Your task to perform on an android device: Open Yahoo.com Image 0: 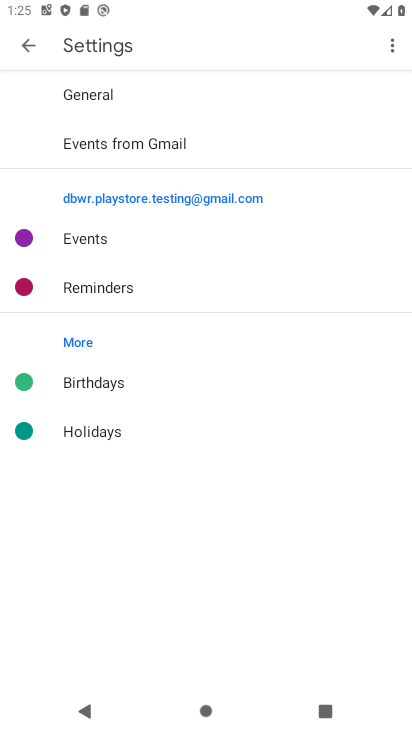
Step 0: drag from (211, 622) to (327, 341)
Your task to perform on an android device: Open Yahoo.com Image 1: 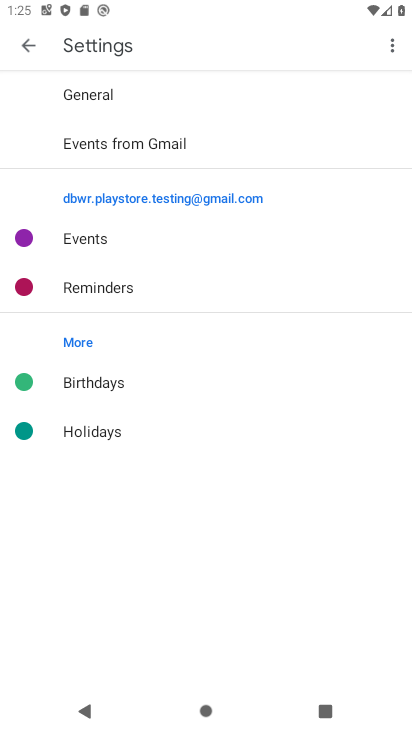
Step 1: press home button
Your task to perform on an android device: Open Yahoo.com Image 2: 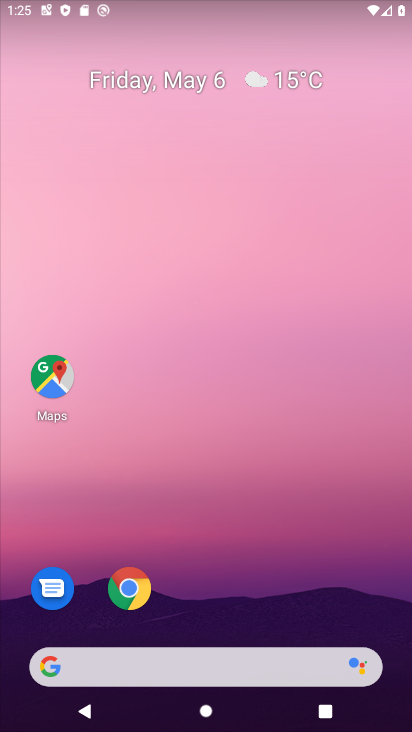
Step 2: drag from (221, 638) to (216, 249)
Your task to perform on an android device: Open Yahoo.com Image 3: 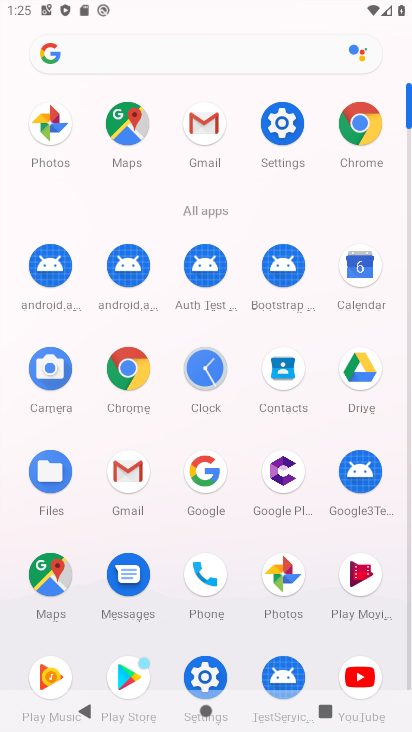
Step 3: click (216, 56)
Your task to perform on an android device: Open Yahoo.com Image 4: 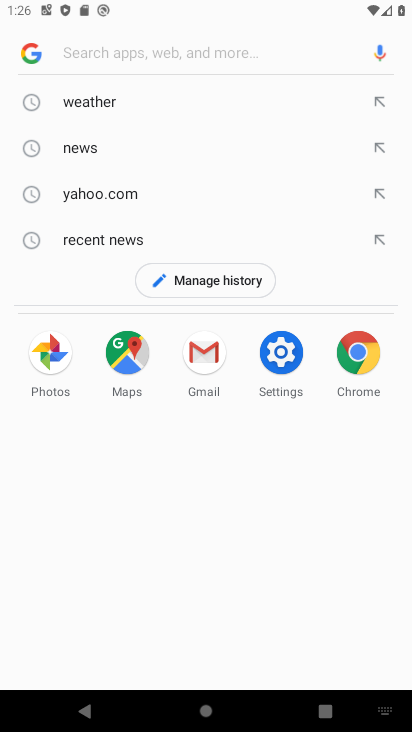
Step 4: type "yahoo.com"
Your task to perform on an android device: Open Yahoo.com Image 5: 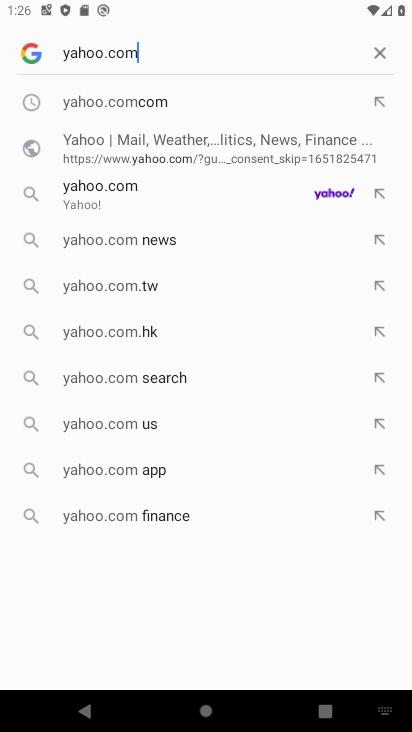
Step 5: click (117, 189)
Your task to perform on an android device: Open Yahoo.com Image 6: 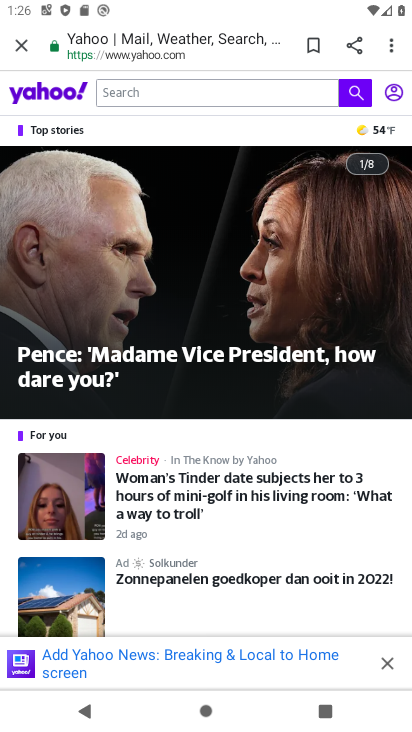
Step 6: task complete